Your task to perform on an android device: Open maps Image 0: 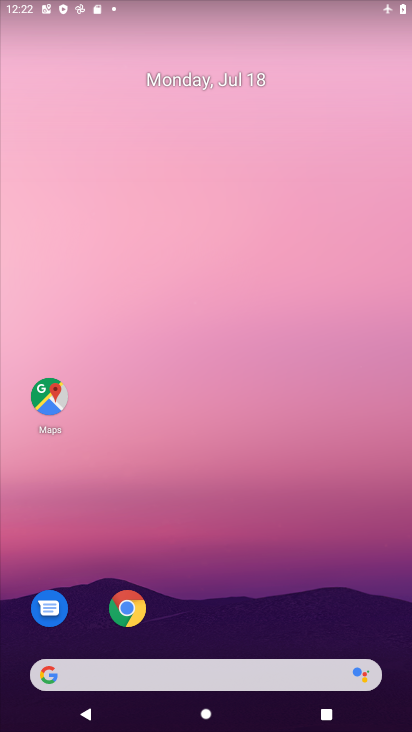
Step 0: drag from (353, 625) to (176, 0)
Your task to perform on an android device: Open maps Image 1: 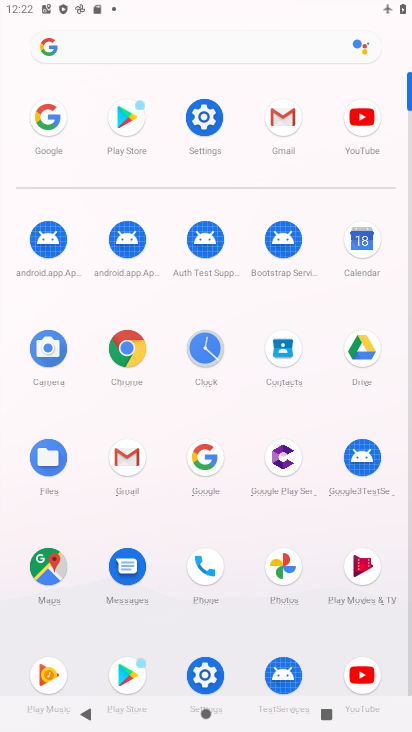
Step 1: click (35, 551)
Your task to perform on an android device: Open maps Image 2: 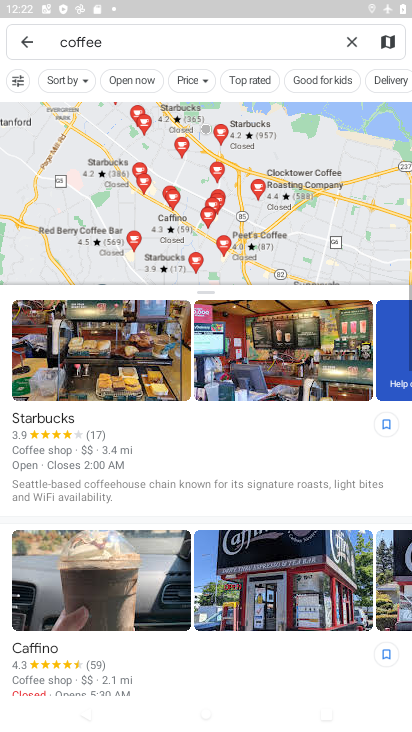
Step 2: click (350, 42)
Your task to perform on an android device: Open maps Image 3: 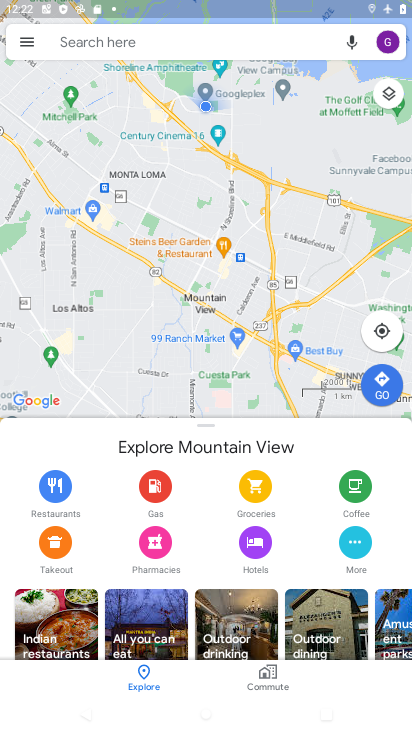
Step 3: task complete